Your task to perform on an android device: Go to location settings Image 0: 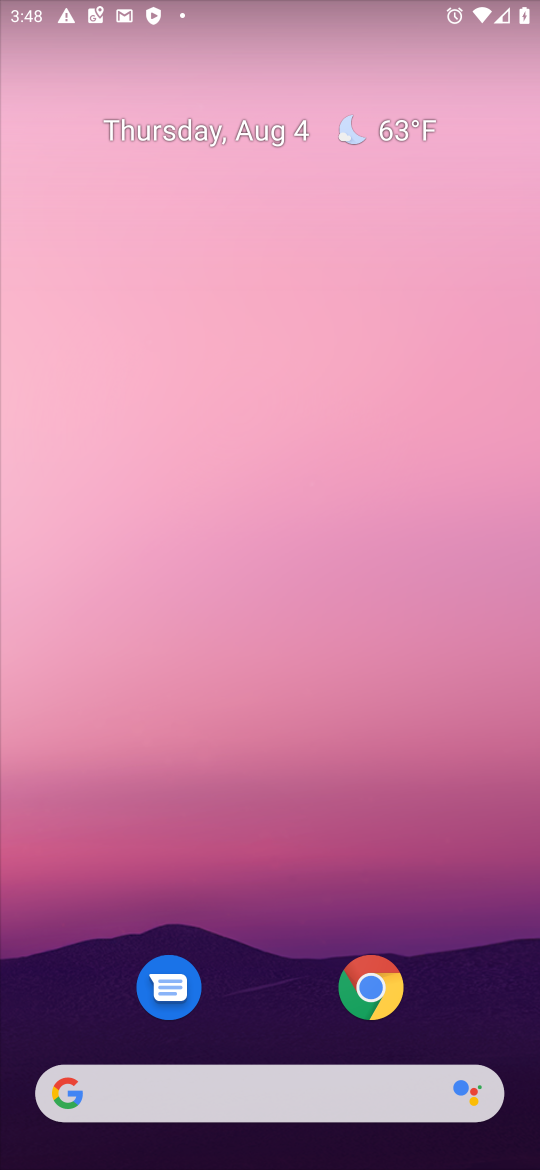
Step 0: drag from (251, 786) to (229, 54)
Your task to perform on an android device: Go to location settings Image 1: 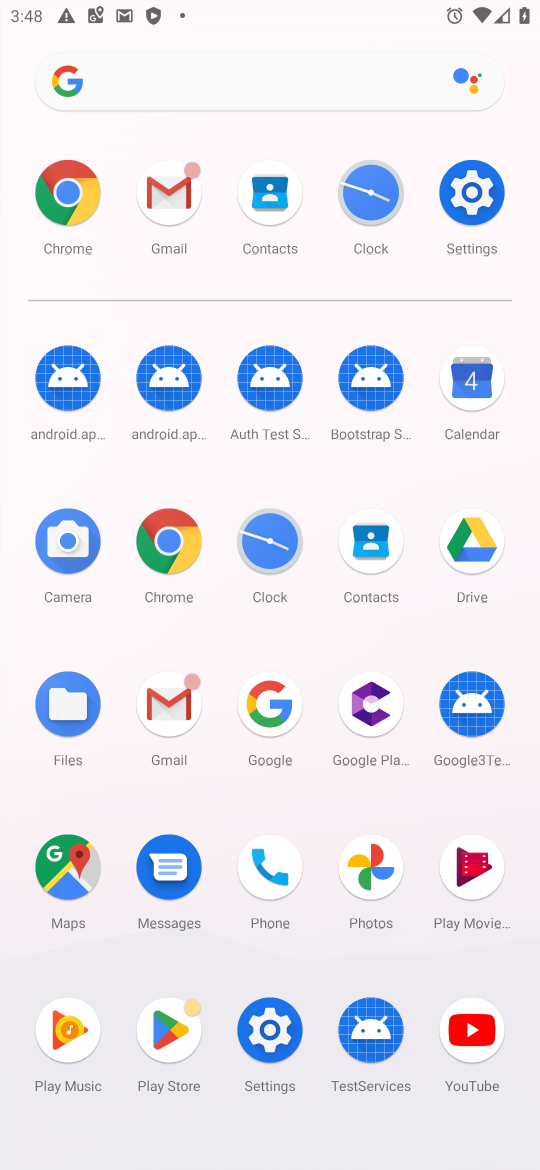
Step 1: click (463, 208)
Your task to perform on an android device: Go to location settings Image 2: 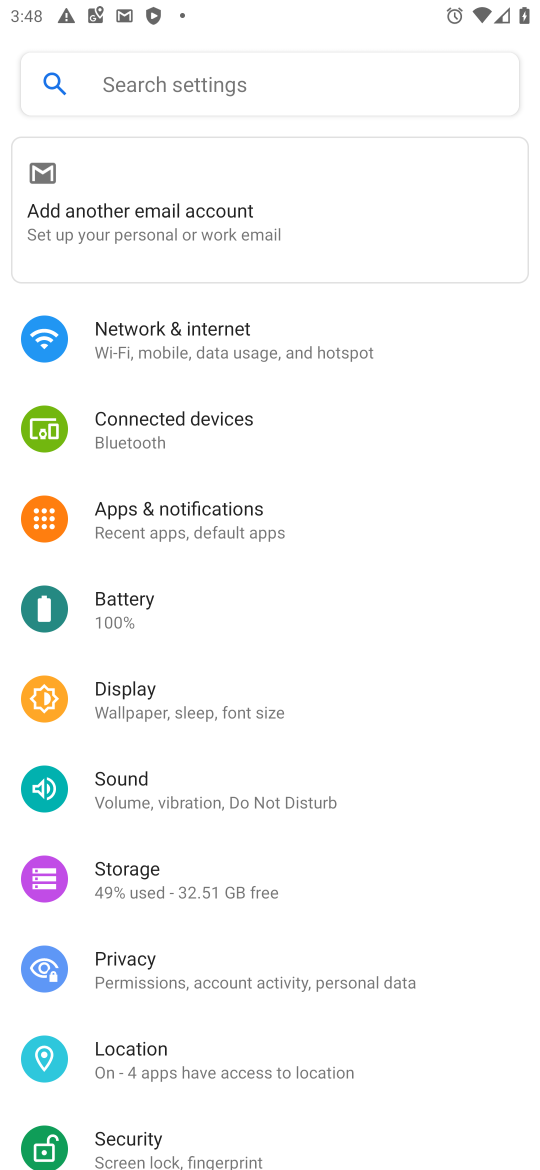
Step 2: click (126, 1062)
Your task to perform on an android device: Go to location settings Image 3: 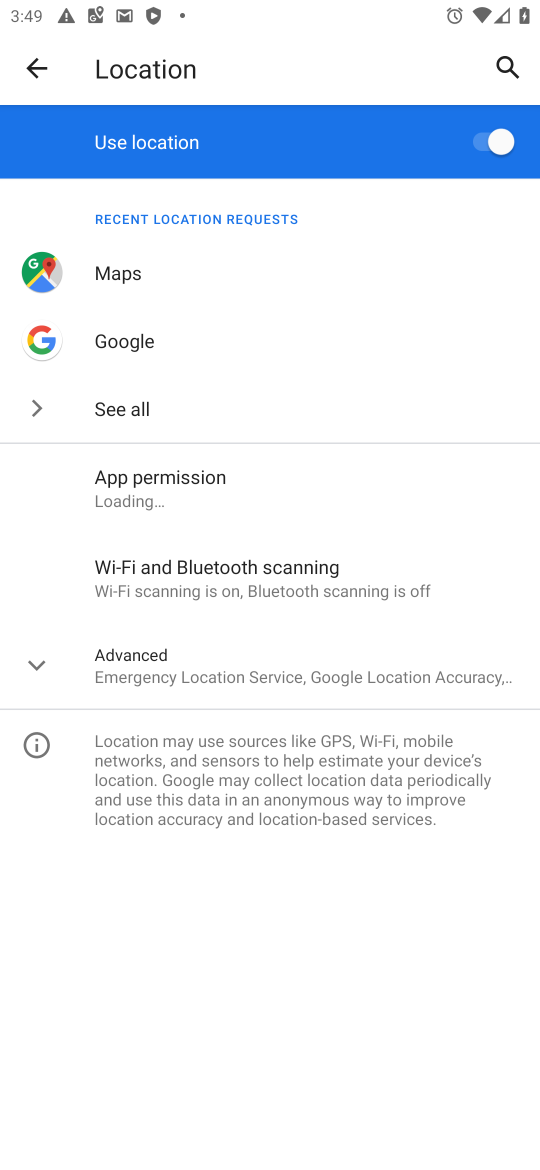
Step 3: task complete